Your task to perform on an android device: Open Google Chrome Image 0: 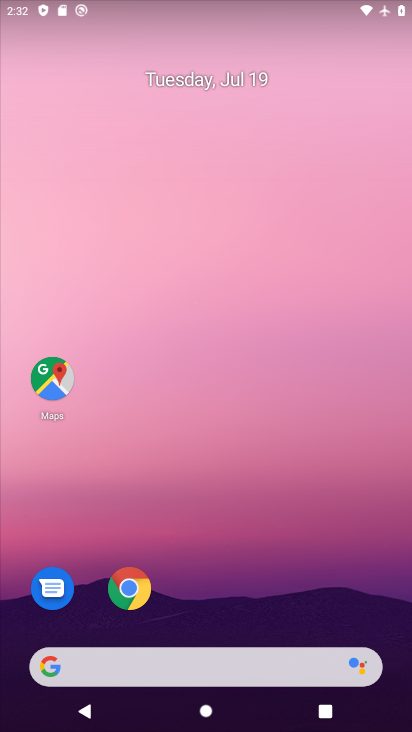
Step 0: drag from (212, 638) to (310, 188)
Your task to perform on an android device: Open Google Chrome Image 1: 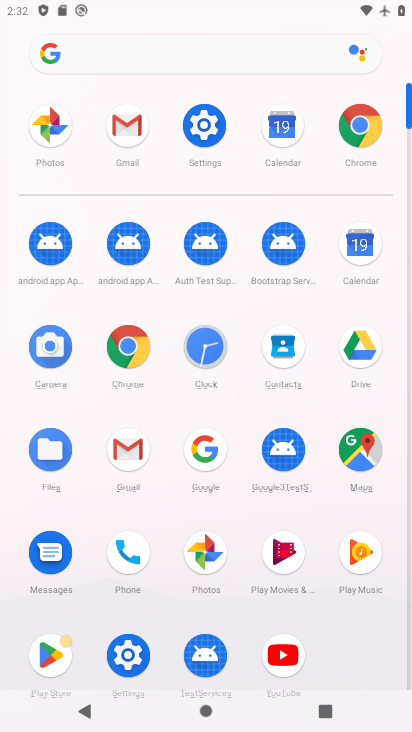
Step 1: click (354, 137)
Your task to perform on an android device: Open Google Chrome Image 2: 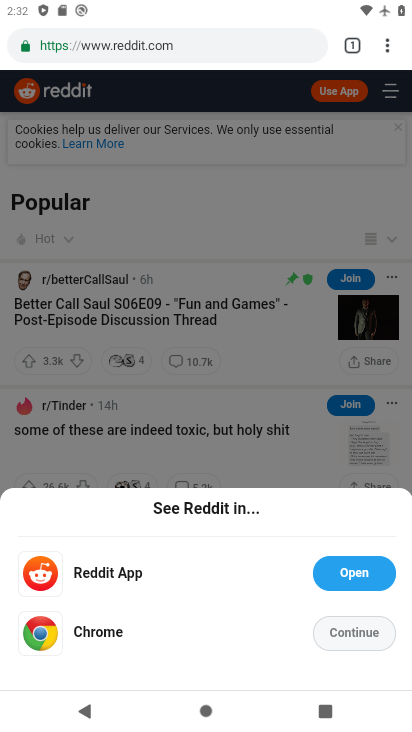
Step 2: task complete